Your task to perform on an android device: toggle airplane mode Image 0: 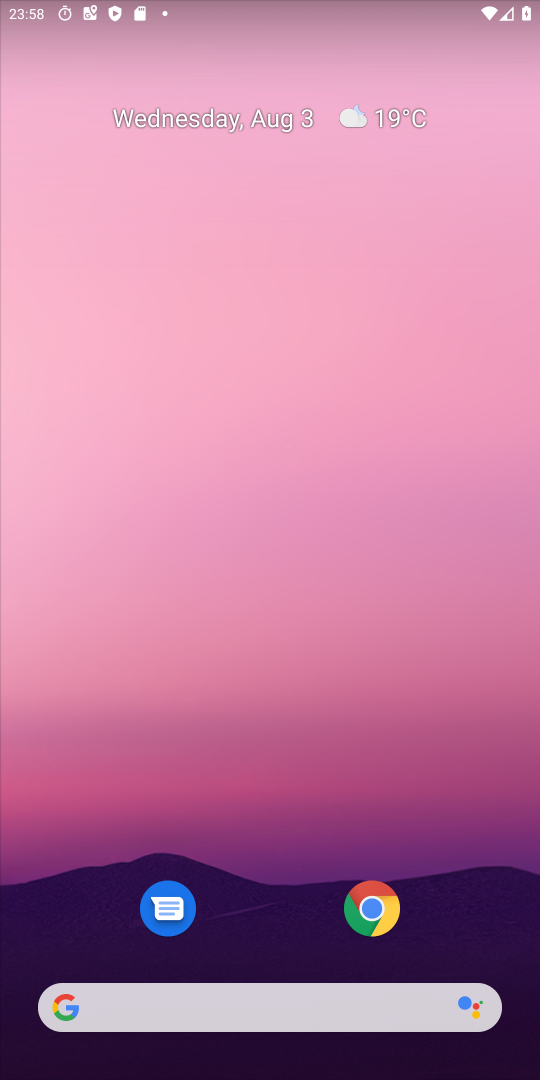
Step 0: drag from (312, 1031) to (231, 299)
Your task to perform on an android device: toggle airplane mode Image 1: 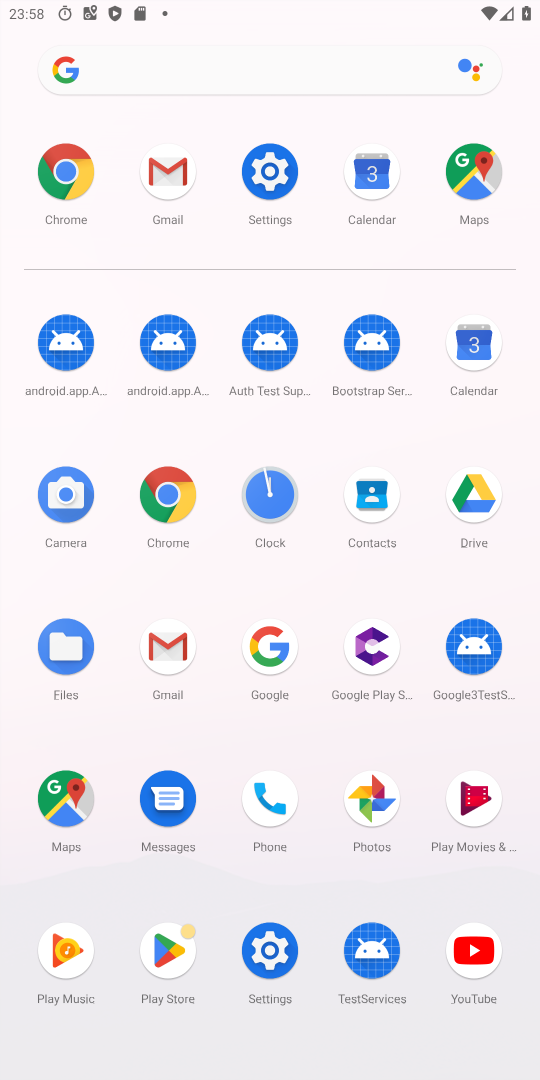
Step 1: click (286, 156)
Your task to perform on an android device: toggle airplane mode Image 2: 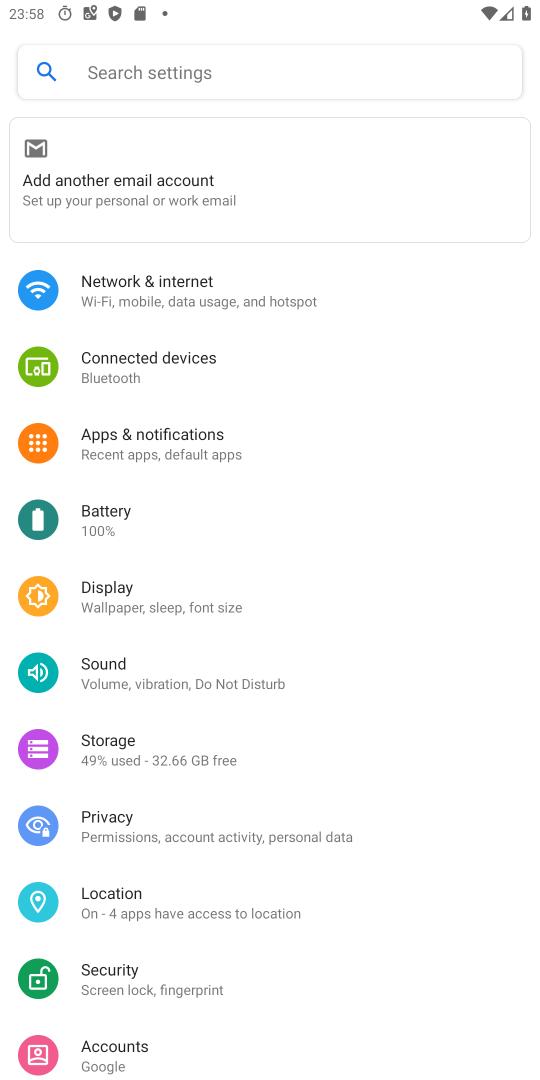
Step 2: click (213, 288)
Your task to perform on an android device: toggle airplane mode Image 3: 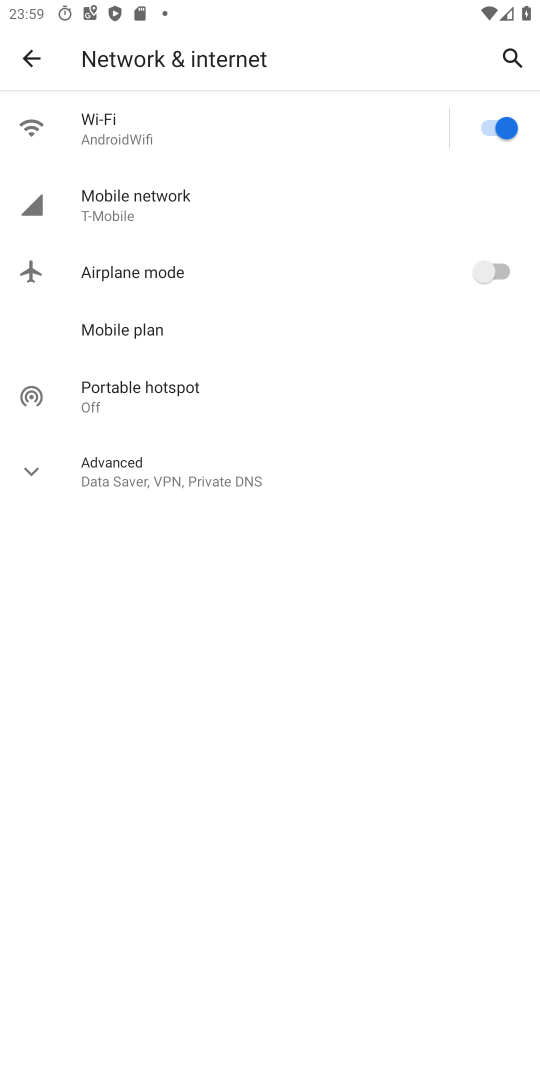
Step 3: click (236, 277)
Your task to perform on an android device: toggle airplane mode Image 4: 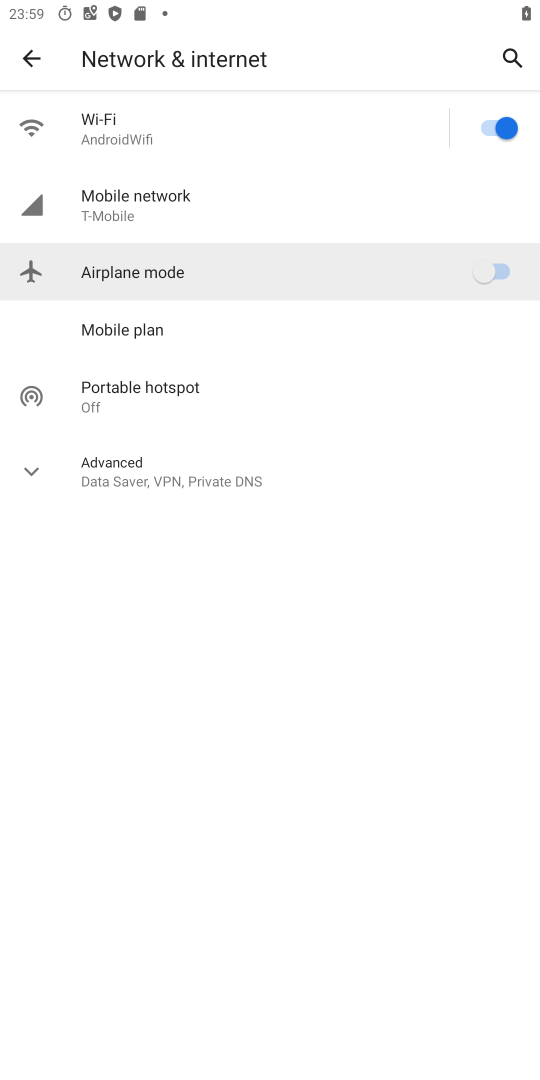
Step 4: click (236, 277)
Your task to perform on an android device: toggle airplane mode Image 5: 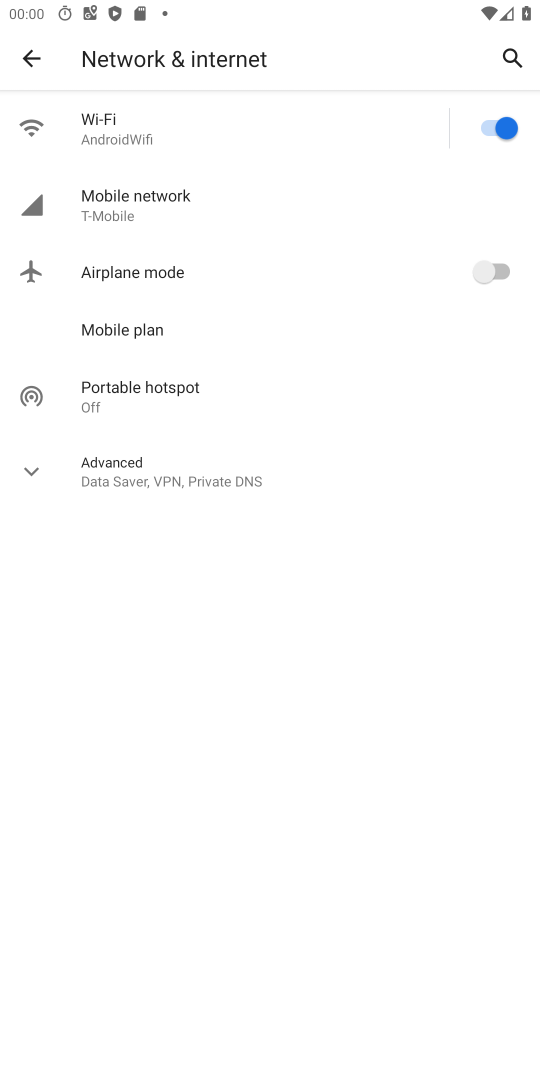
Step 5: task complete